Your task to perform on an android device: check out phone information Image 0: 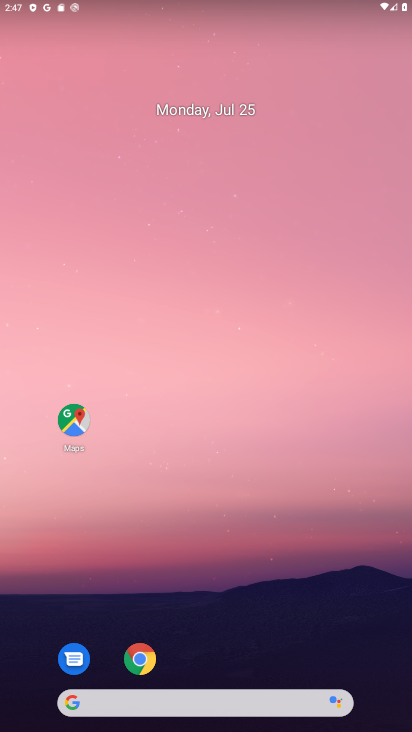
Step 0: drag from (209, 688) to (199, 151)
Your task to perform on an android device: check out phone information Image 1: 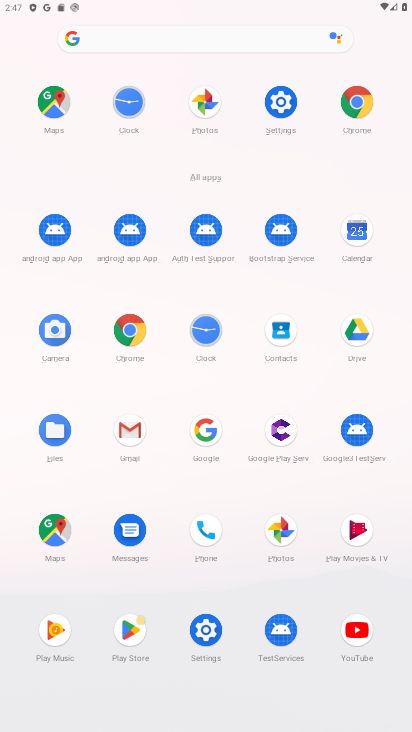
Step 1: click (212, 633)
Your task to perform on an android device: check out phone information Image 2: 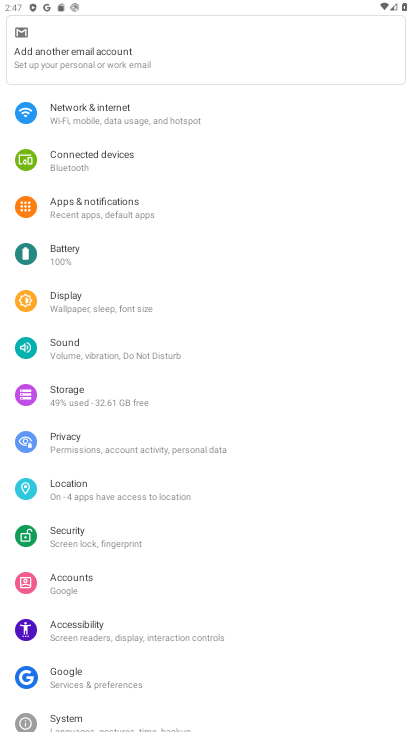
Step 2: drag from (209, 647) to (186, 162)
Your task to perform on an android device: check out phone information Image 3: 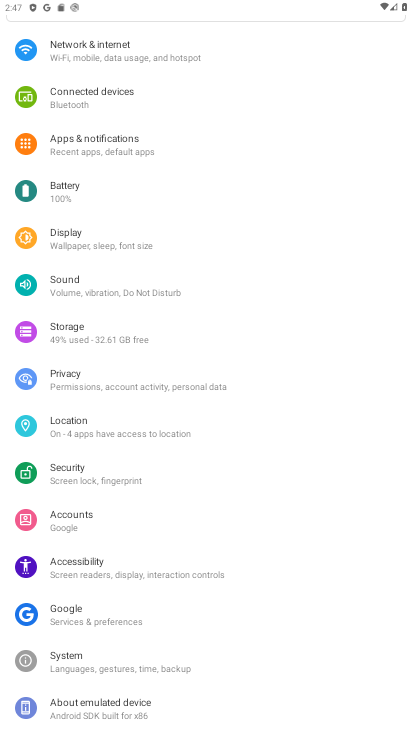
Step 3: click (90, 707)
Your task to perform on an android device: check out phone information Image 4: 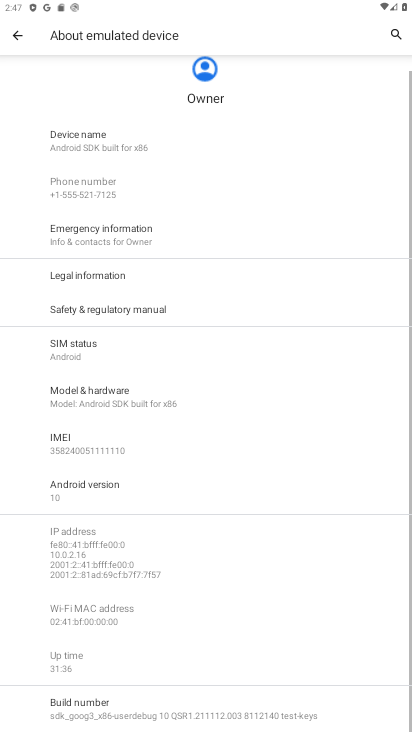
Step 4: task complete